Your task to perform on an android device: uninstall "Google Chat" Image 0: 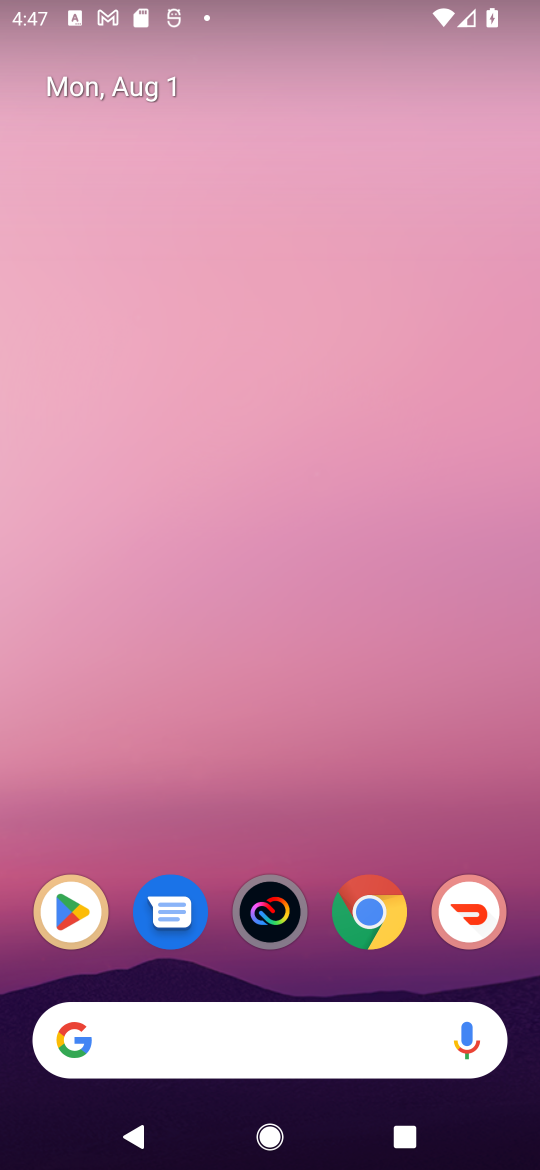
Step 0: click (48, 903)
Your task to perform on an android device: uninstall "Google Chat" Image 1: 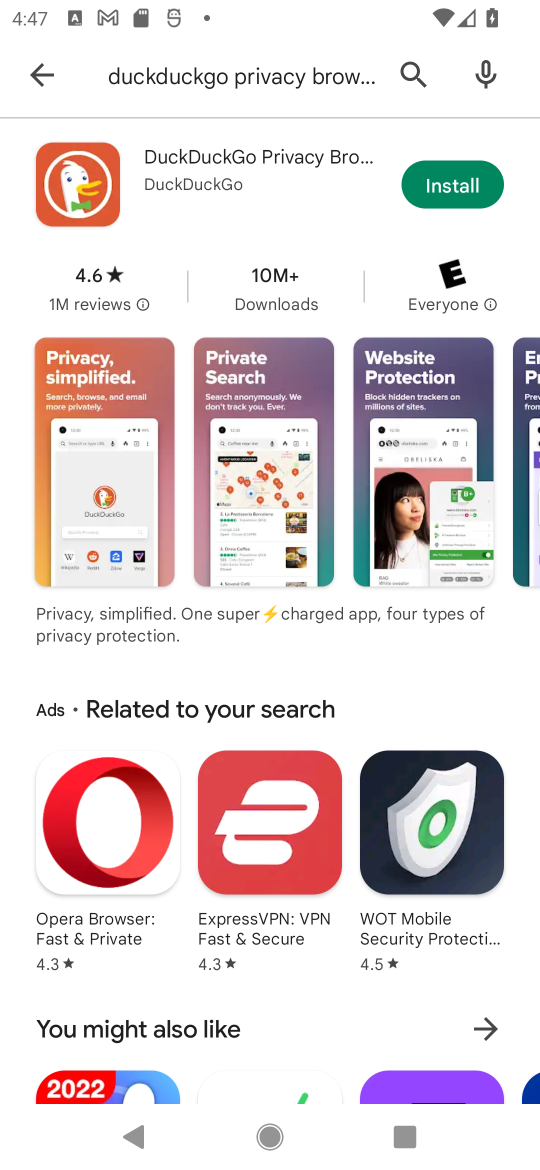
Step 1: click (415, 76)
Your task to perform on an android device: uninstall "Google Chat" Image 2: 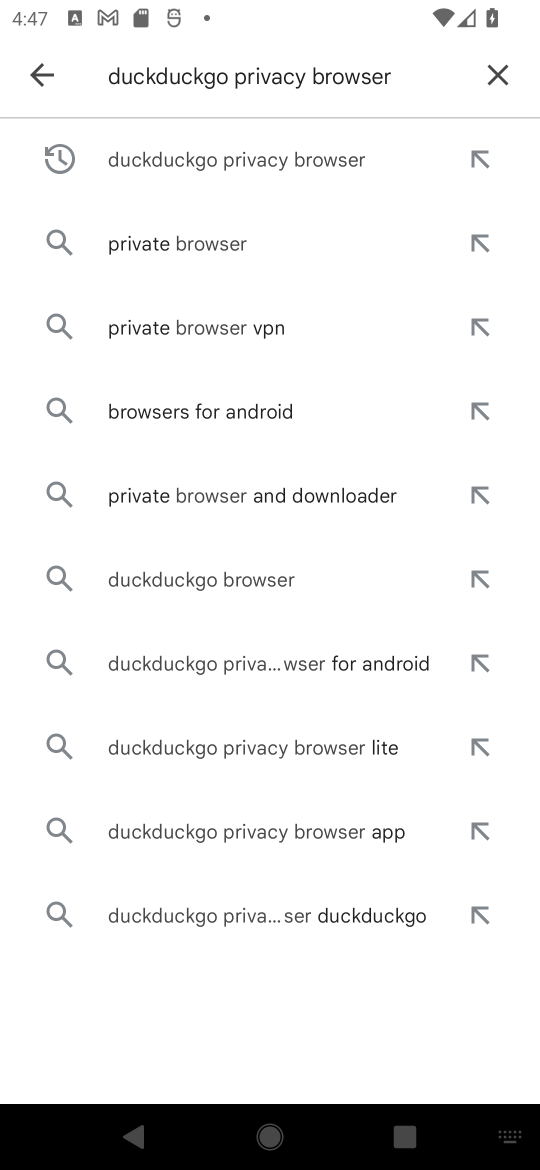
Step 2: click (500, 66)
Your task to perform on an android device: uninstall "Google Chat" Image 3: 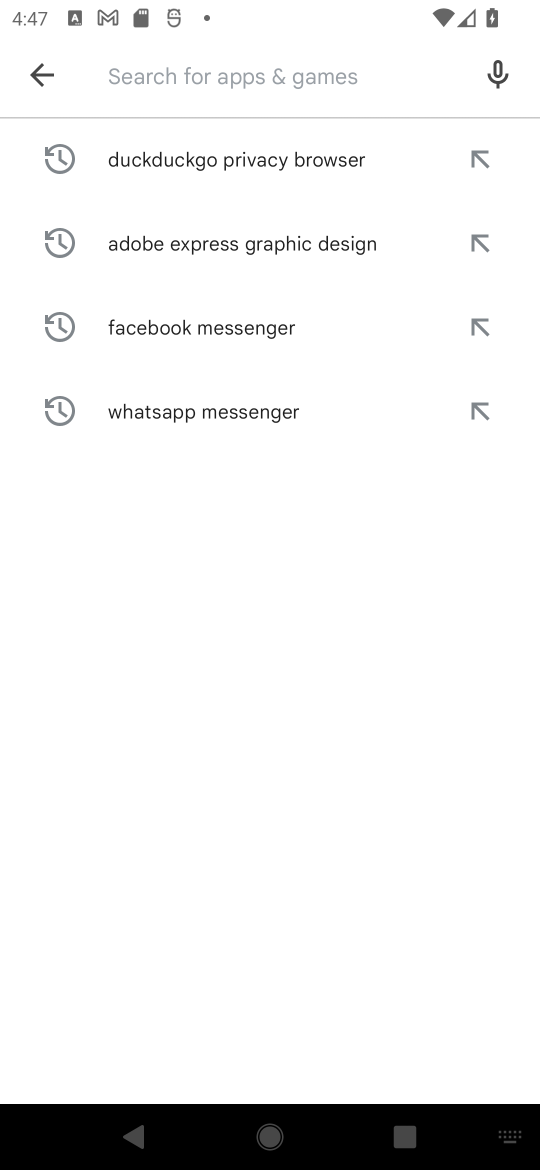
Step 3: type "Google Chat"
Your task to perform on an android device: uninstall "Google Chat" Image 4: 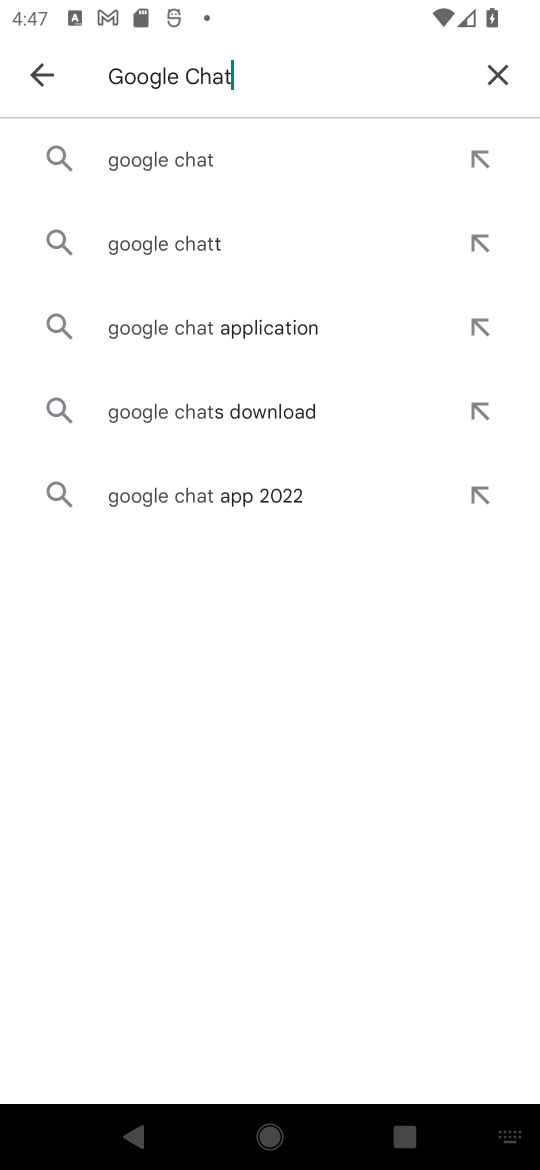
Step 4: click (116, 172)
Your task to perform on an android device: uninstall "Google Chat" Image 5: 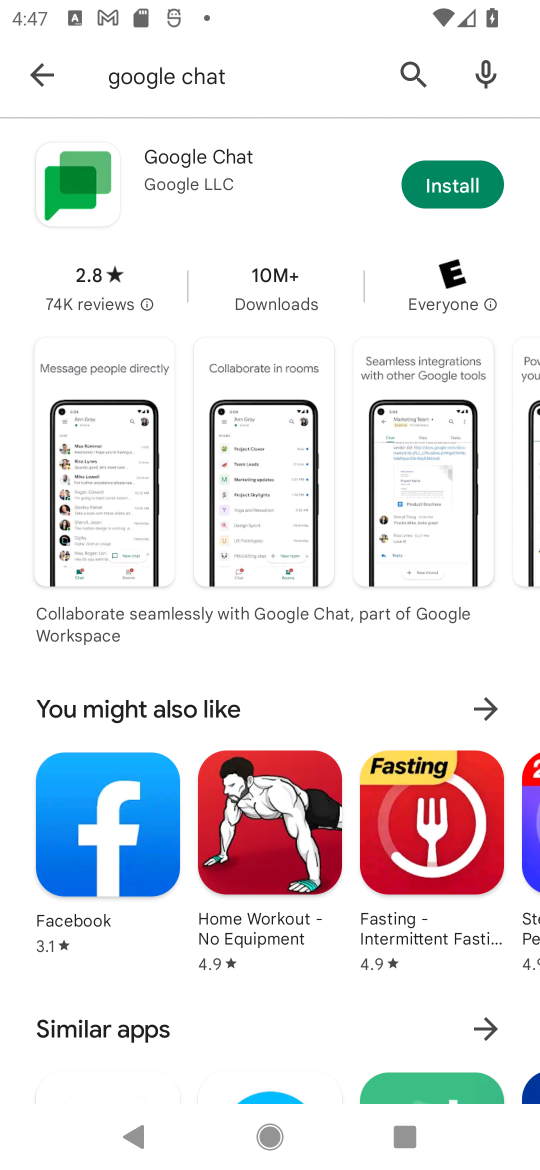
Step 5: task complete